Your task to perform on an android device: Open calendar and show me the third week of next month Image 0: 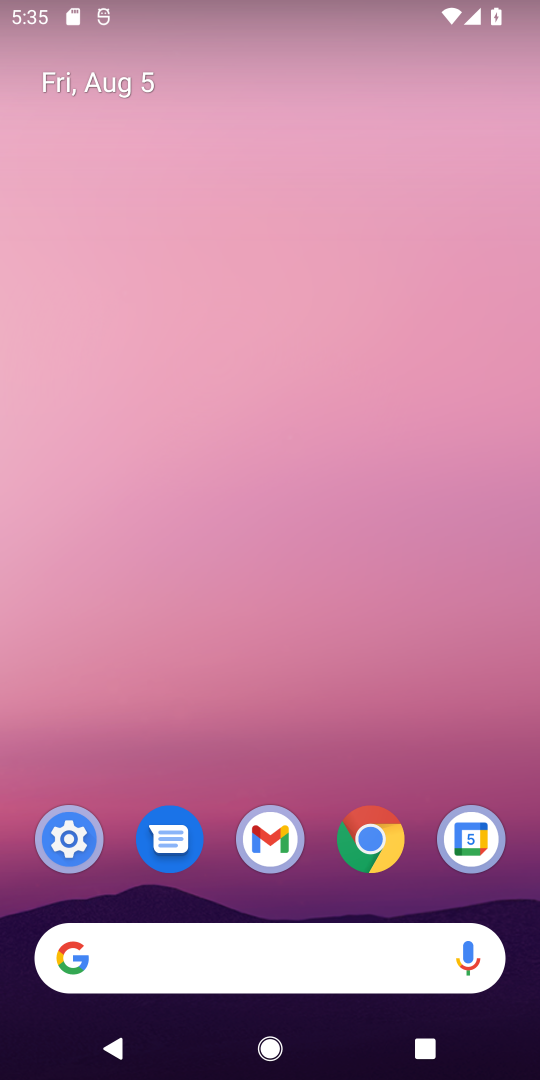
Step 0: drag from (283, 744) to (265, 221)
Your task to perform on an android device: Open calendar and show me the third week of next month Image 1: 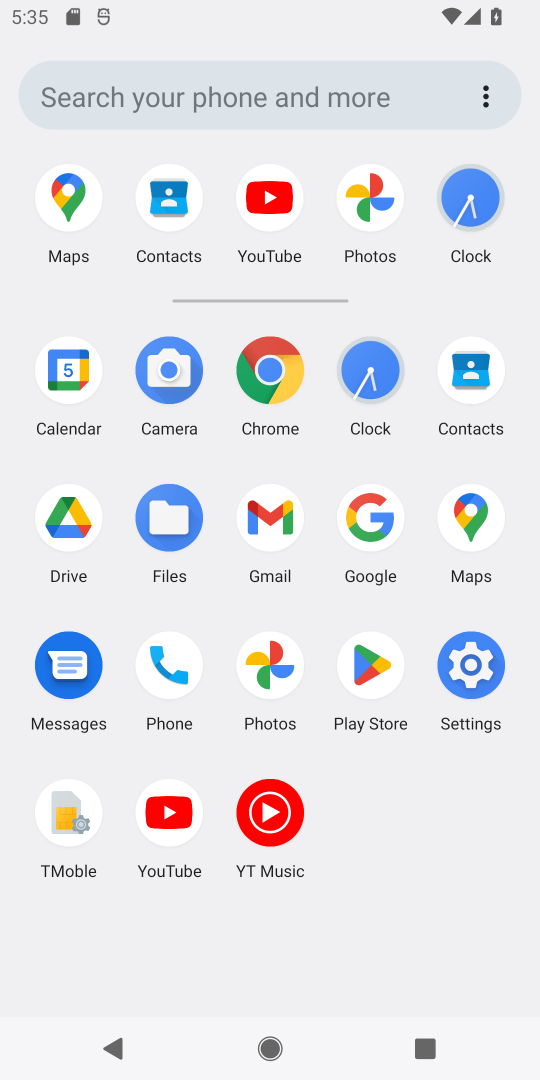
Step 1: click (61, 367)
Your task to perform on an android device: Open calendar and show me the third week of next month Image 2: 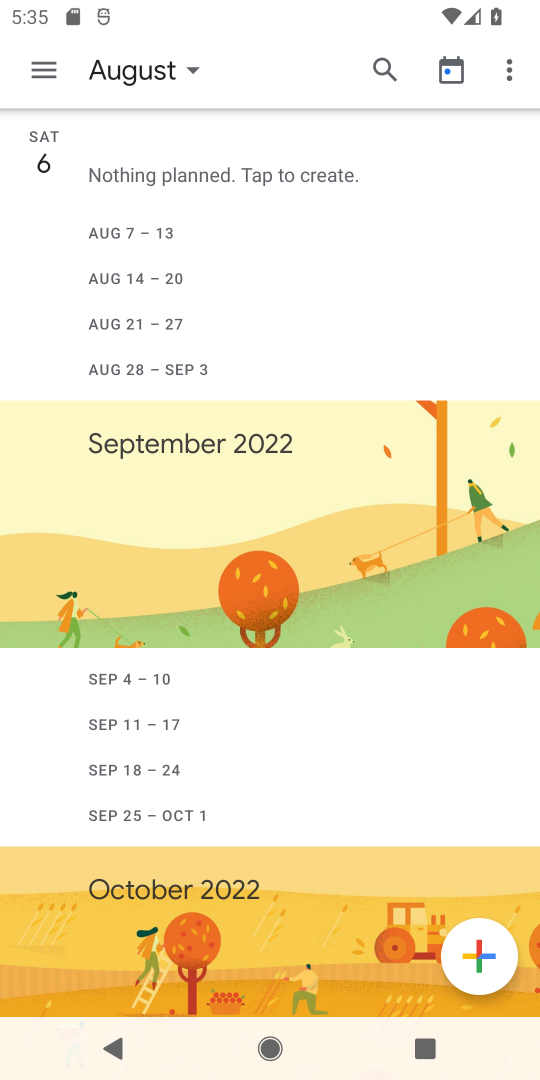
Step 2: click (184, 68)
Your task to perform on an android device: Open calendar and show me the third week of next month Image 3: 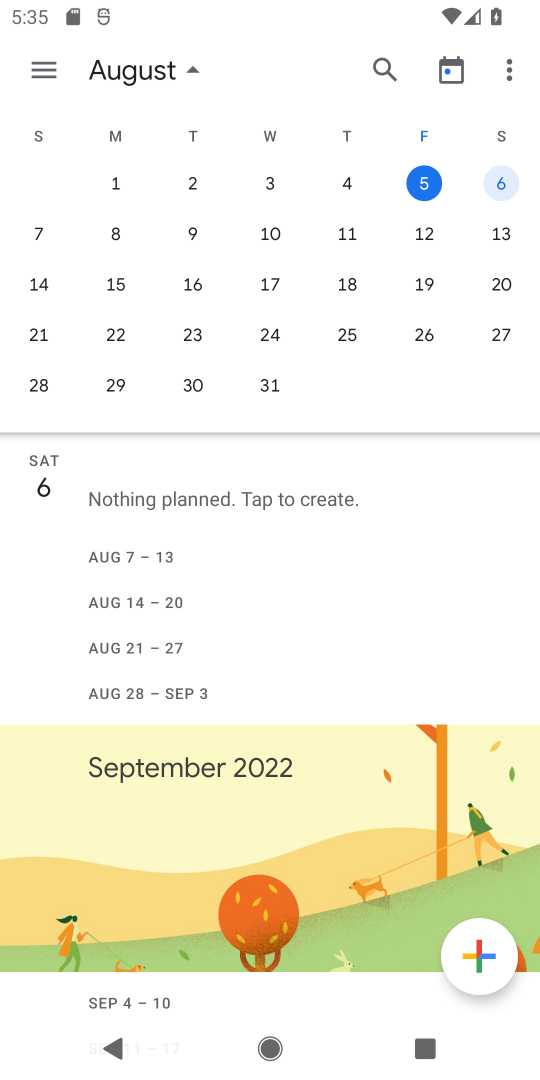
Step 3: drag from (457, 217) to (14, 222)
Your task to perform on an android device: Open calendar and show me the third week of next month Image 4: 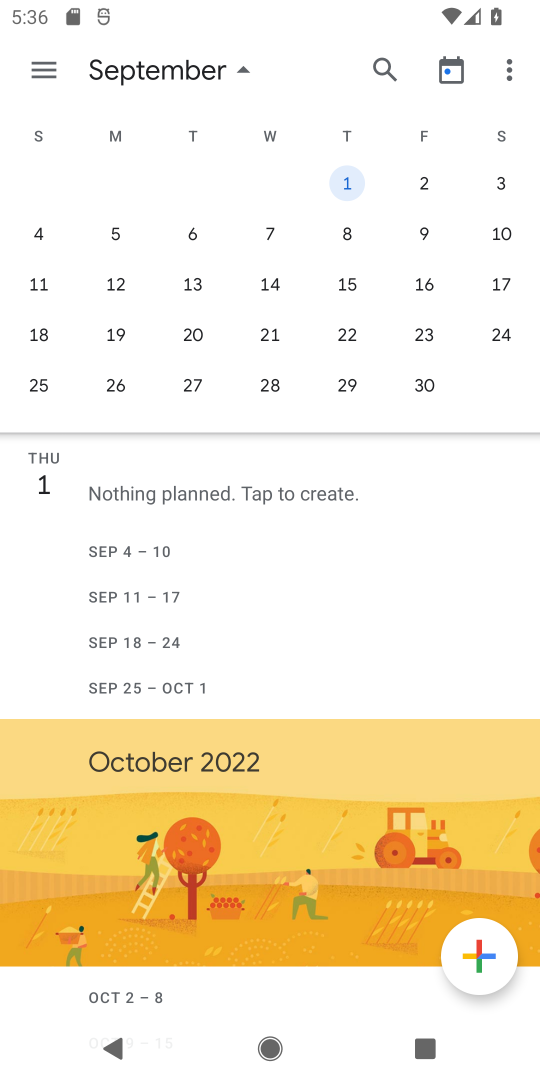
Step 4: click (49, 286)
Your task to perform on an android device: Open calendar and show me the third week of next month Image 5: 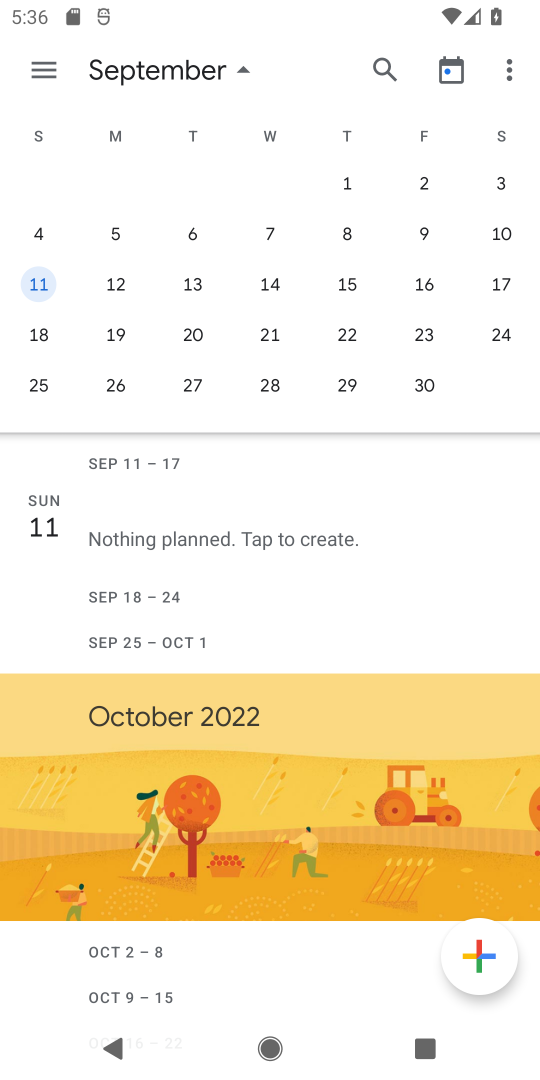
Step 5: task complete